Your task to perform on an android device: see sites visited before in the chrome app Image 0: 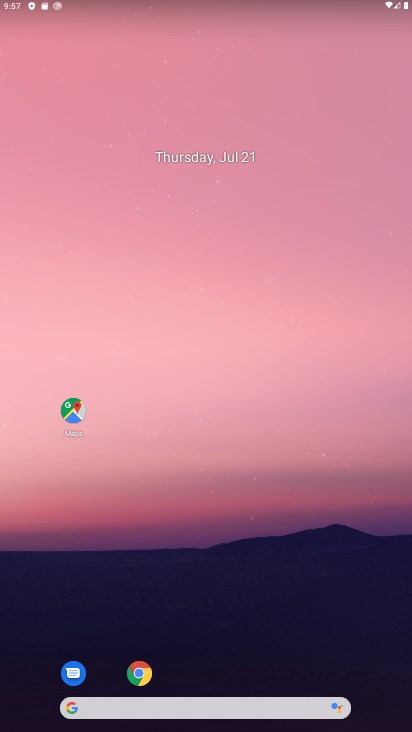
Step 0: click (145, 669)
Your task to perform on an android device: see sites visited before in the chrome app Image 1: 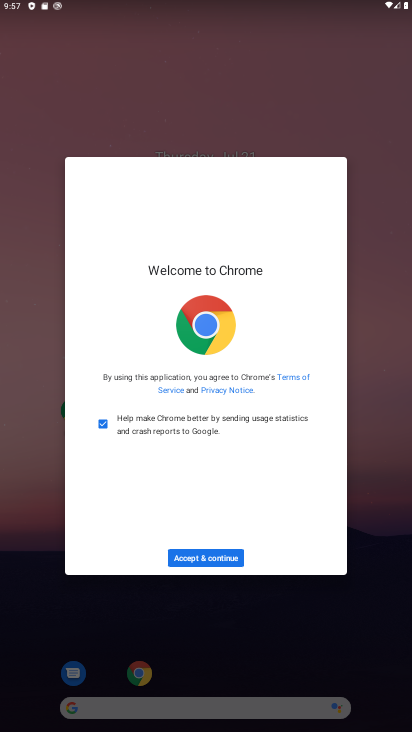
Step 1: click (197, 555)
Your task to perform on an android device: see sites visited before in the chrome app Image 2: 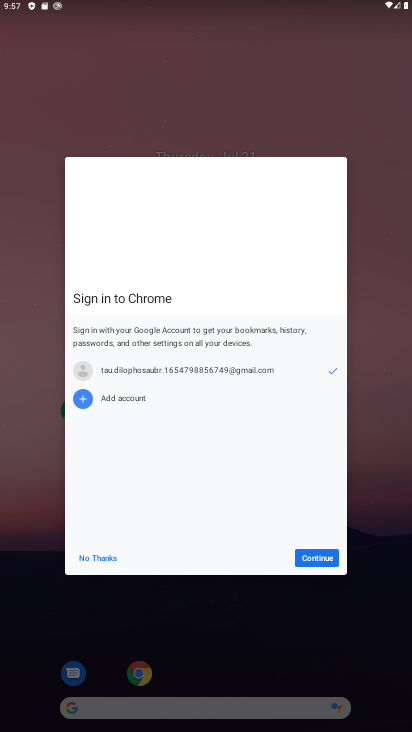
Step 2: click (317, 562)
Your task to perform on an android device: see sites visited before in the chrome app Image 3: 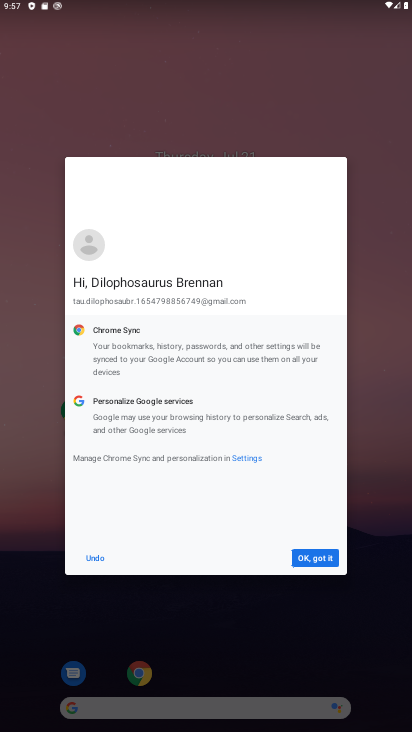
Step 3: click (317, 562)
Your task to perform on an android device: see sites visited before in the chrome app Image 4: 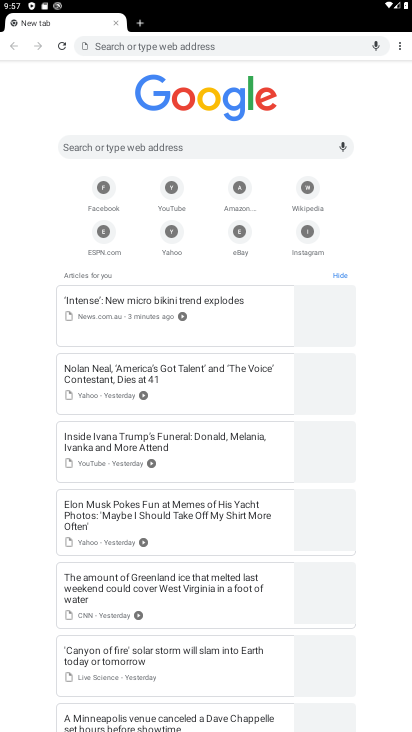
Step 4: click (400, 43)
Your task to perform on an android device: see sites visited before in the chrome app Image 5: 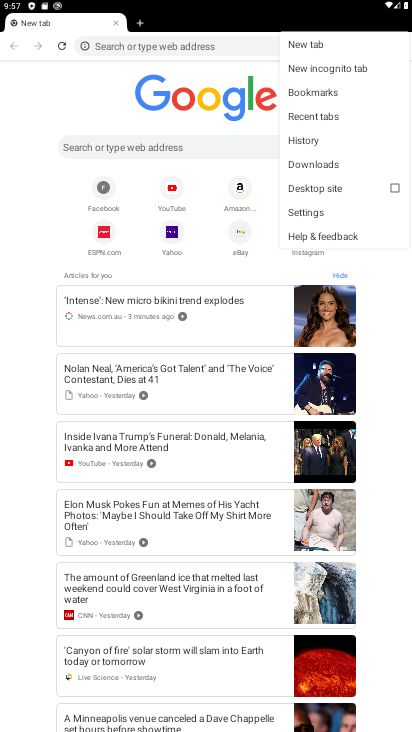
Step 5: click (302, 135)
Your task to perform on an android device: see sites visited before in the chrome app Image 6: 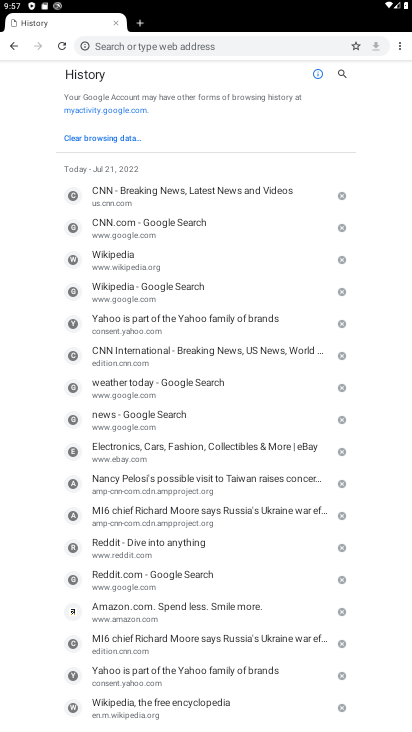
Step 6: task complete